Your task to perform on an android device: set the stopwatch Image 0: 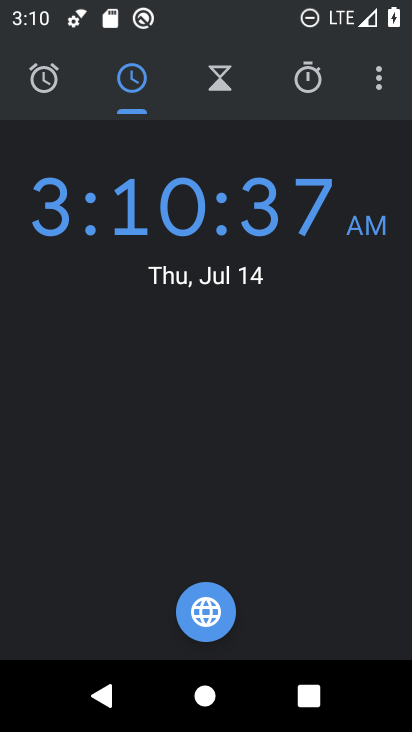
Step 0: press home button
Your task to perform on an android device: set the stopwatch Image 1: 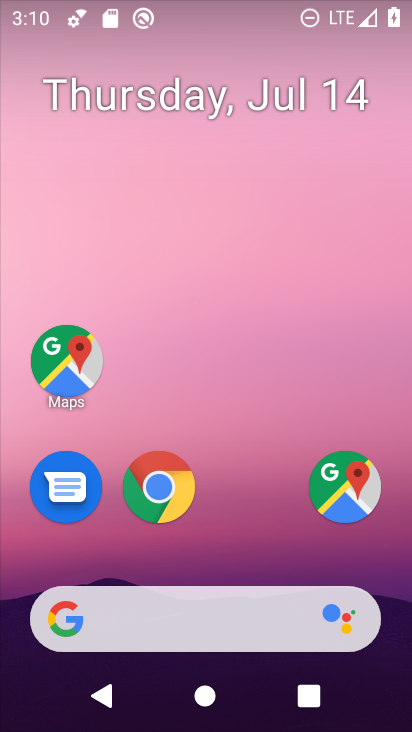
Step 1: drag from (264, 549) to (251, 116)
Your task to perform on an android device: set the stopwatch Image 2: 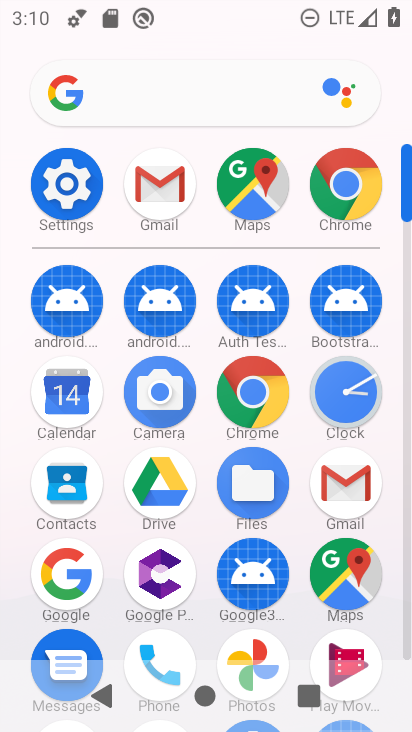
Step 2: click (354, 396)
Your task to perform on an android device: set the stopwatch Image 3: 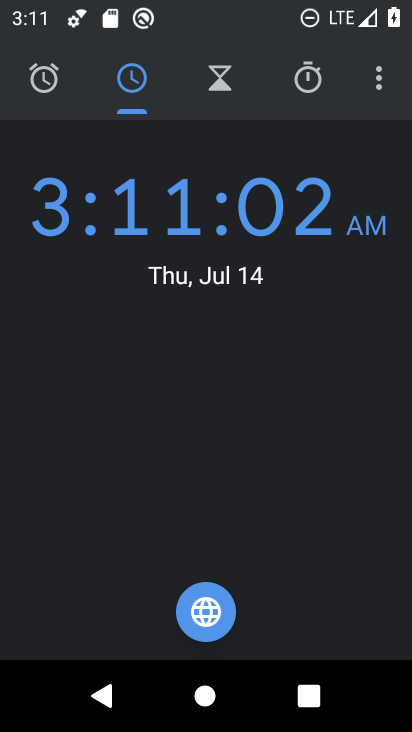
Step 3: click (312, 76)
Your task to perform on an android device: set the stopwatch Image 4: 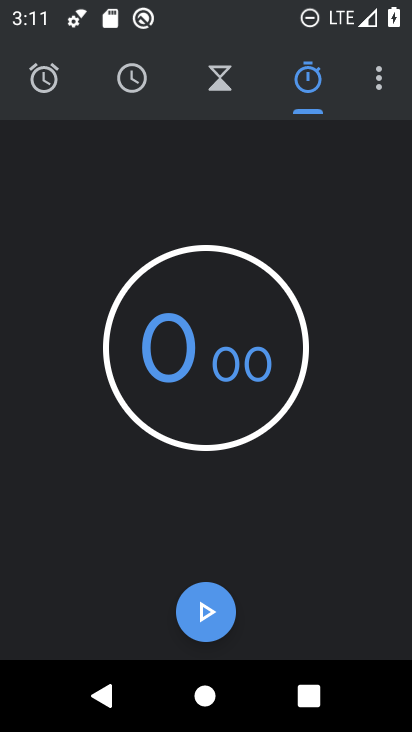
Step 4: click (216, 616)
Your task to perform on an android device: set the stopwatch Image 5: 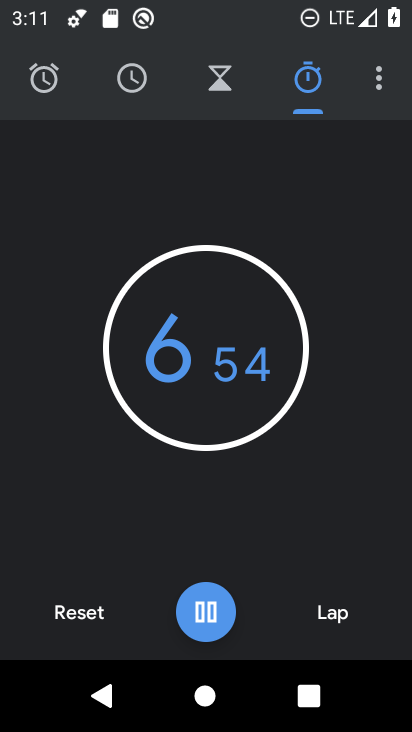
Step 5: task complete